Your task to perform on an android device: Go to CNN.com Image 0: 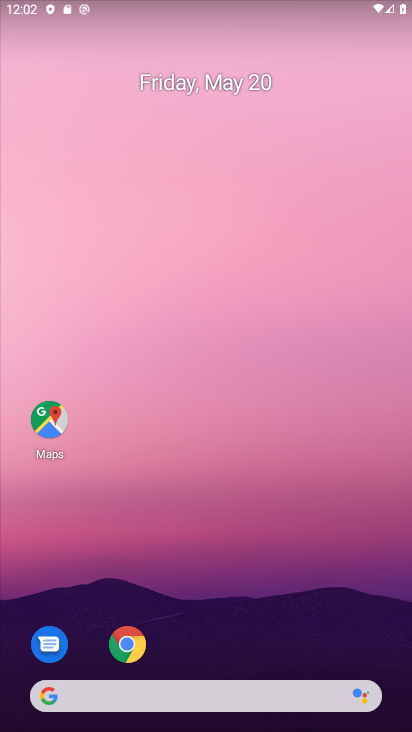
Step 0: click (131, 652)
Your task to perform on an android device: Go to CNN.com Image 1: 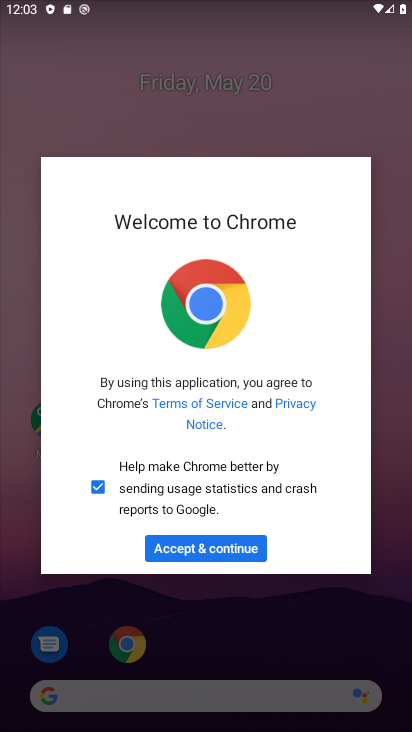
Step 1: click (196, 553)
Your task to perform on an android device: Go to CNN.com Image 2: 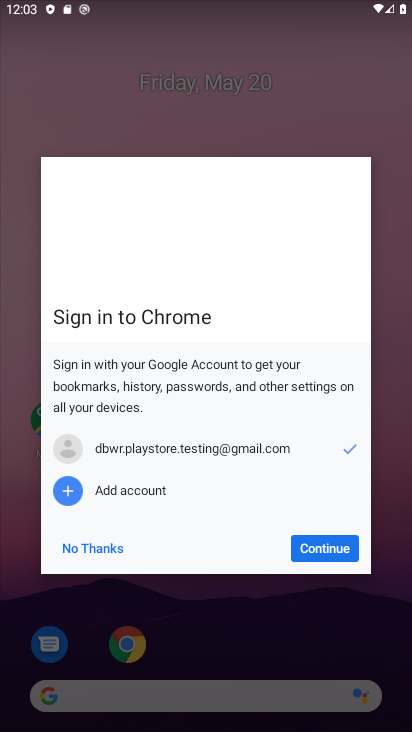
Step 2: click (106, 552)
Your task to perform on an android device: Go to CNN.com Image 3: 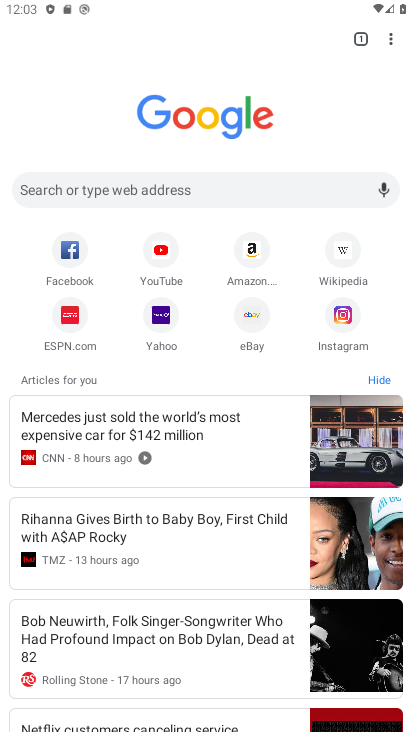
Step 3: click (117, 186)
Your task to perform on an android device: Go to CNN.com Image 4: 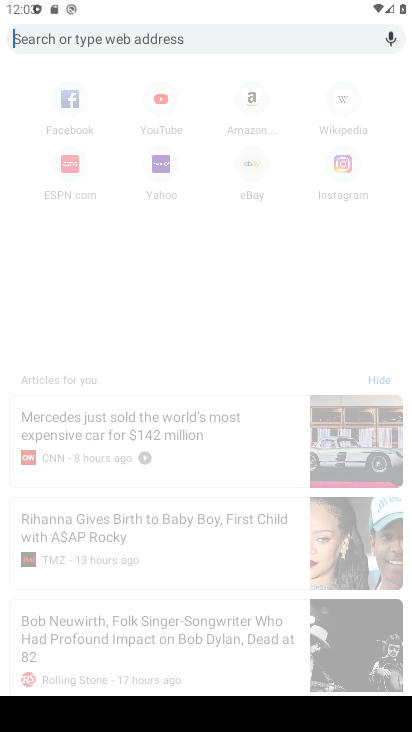
Step 4: type "cnn.com"
Your task to perform on an android device: Go to CNN.com Image 5: 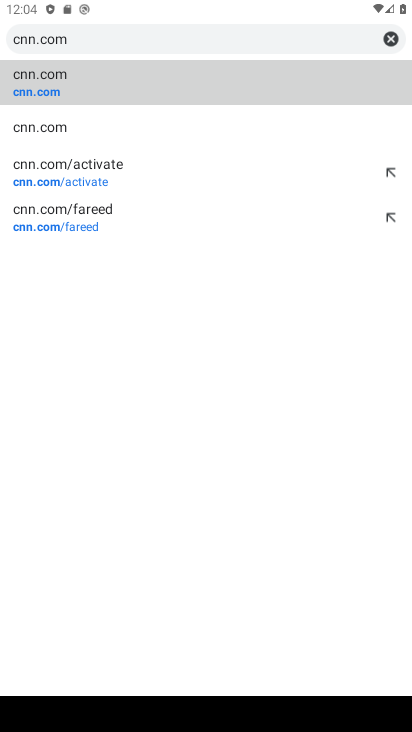
Step 5: click (39, 86)
Your task to perform on an android device: Go to CNN.com Image 6: 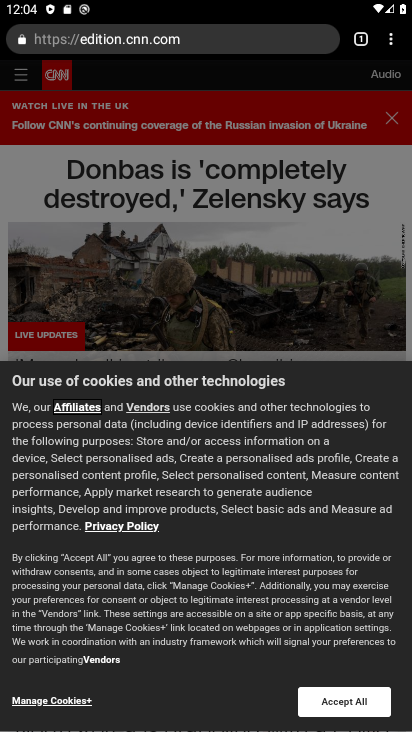
Step 6: task complete